Your task to perform on an android device: open app "Indeed Job Search" (install if not already installed) Image 0: 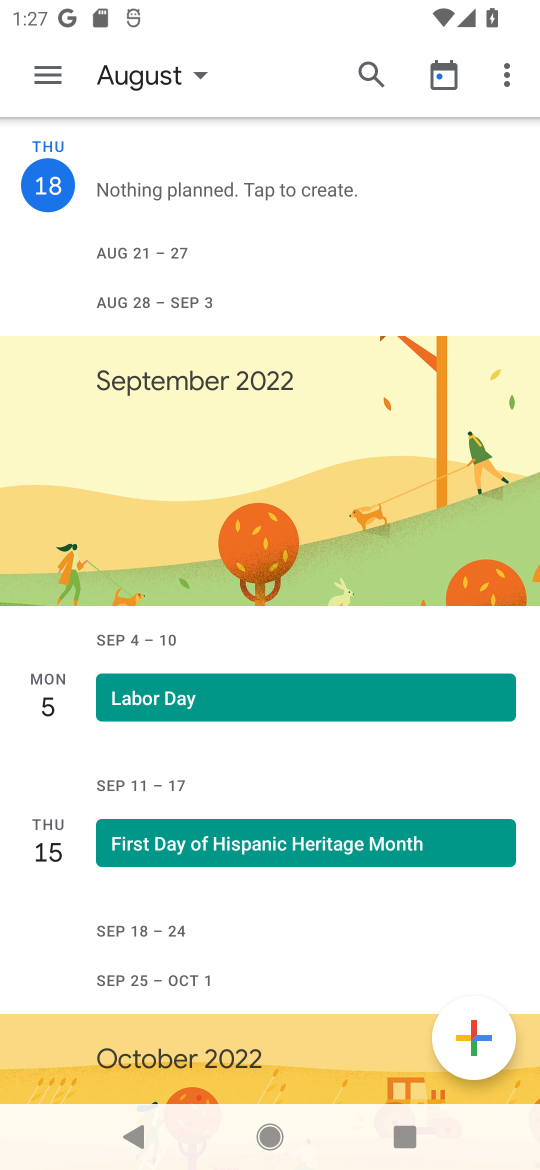
Step 0: press back button
Your task to perform on an android device: open app "Indeed Job Search" (install if not already installed) Image 1: 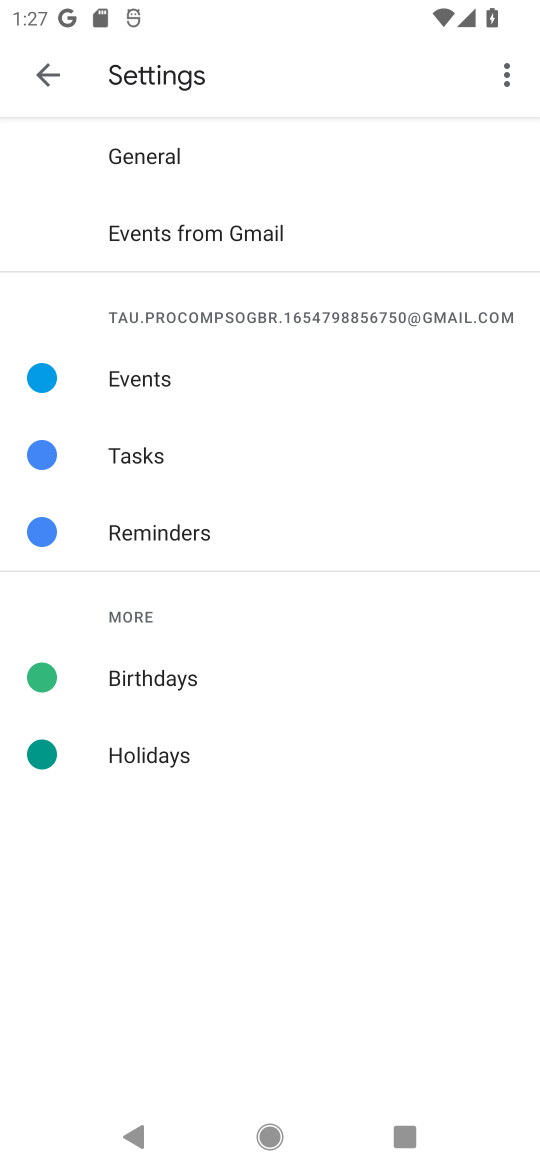
Step 1: press back button
Your task to perform on an android device: open app "Indeed Job Search" (install if not already installed) Image 2: 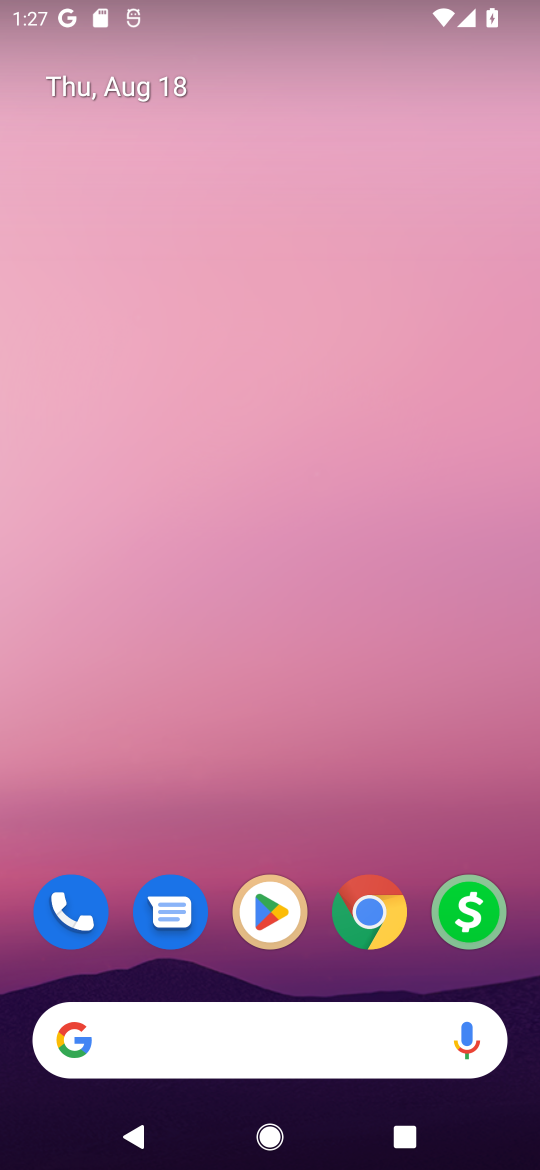
Step 2: click (266, 923)
Your task to perform on an android device: open app "Indeed Job Search" (install if not already installed) Image 3: 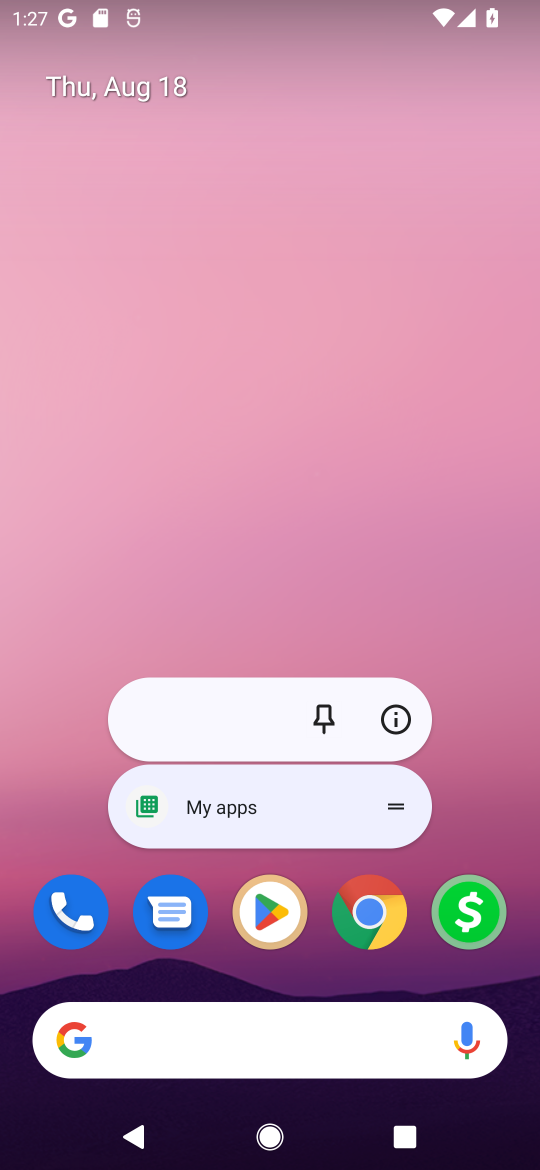
Step 3: click (258, 929)
Your task to perform on an android device: open app "Indeed Job Search" (install if not already installed) Image 4: 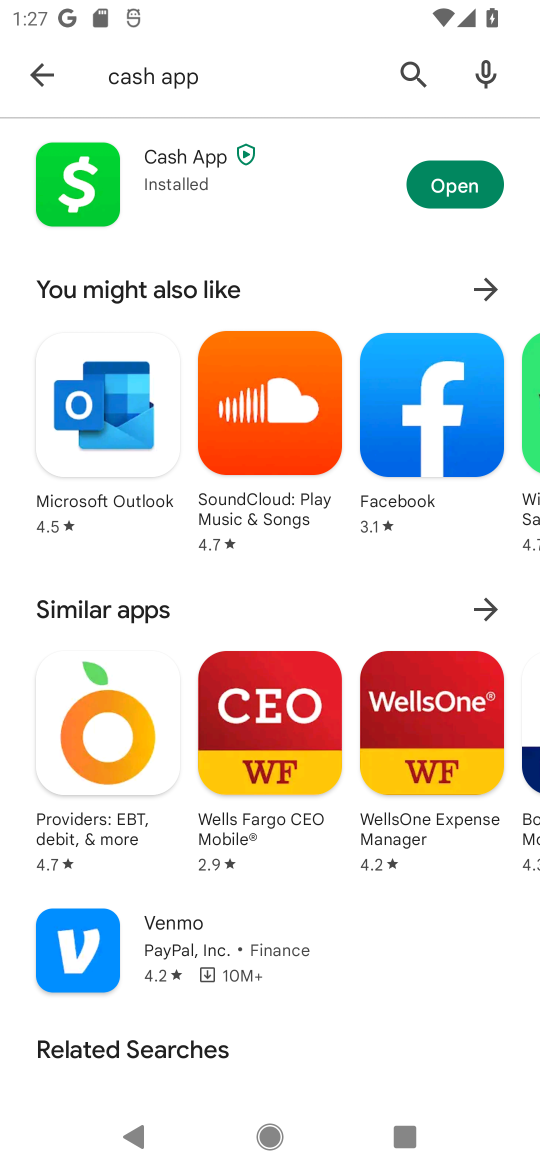
Step 4: click (411, 88)
Your task to perform on an android device: open app "Indeed Job Search" (install if not already installed) Image 5: 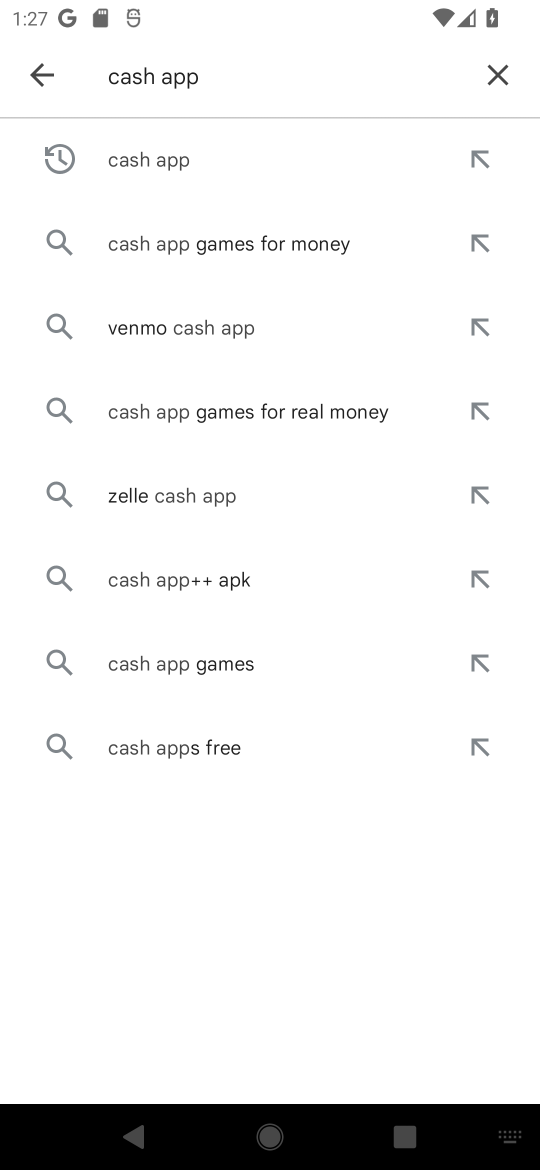
Step 5: click (496, 63)
Your task to perform on an android device: open app "Indeed Job Search" (install if not already installed) Image 6: 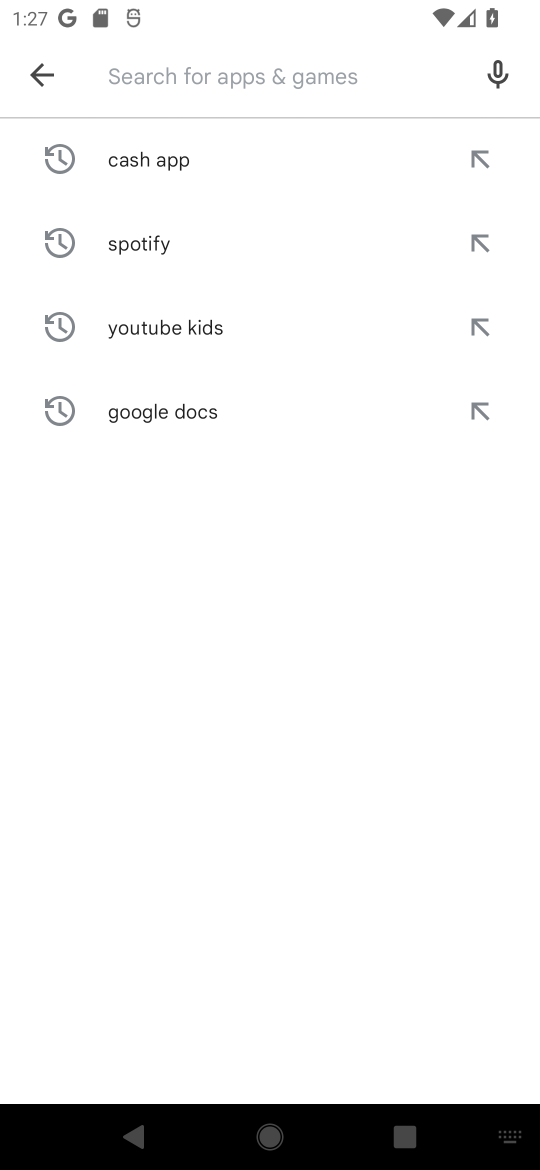
Step 6: click (136, 56)
Your task to perform on an android device: open app "Indeed Job Search" (install if not already installed) Image 7: 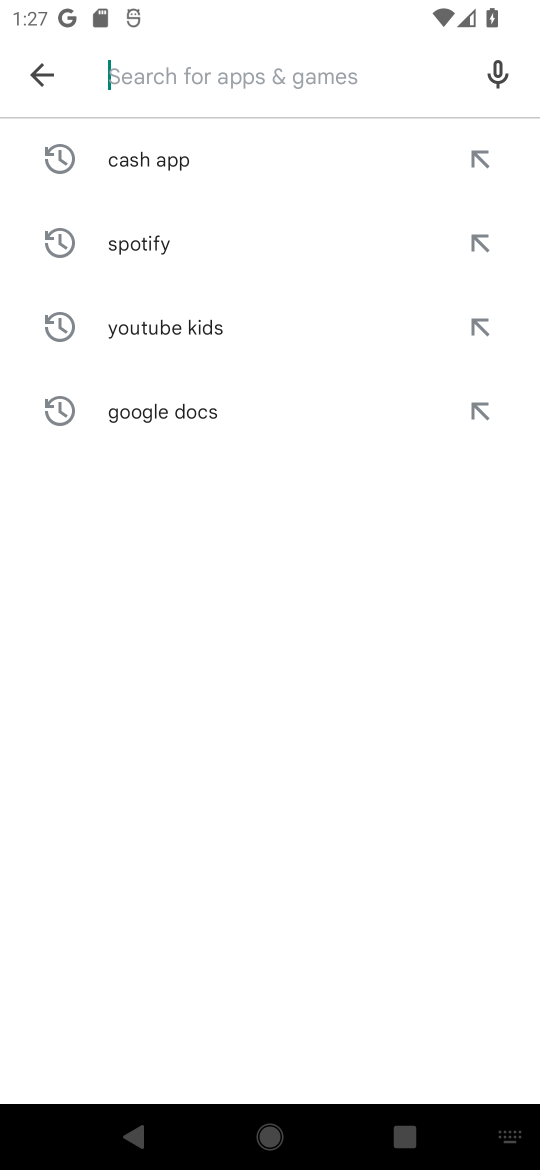
Step 7: type "Indeed Job Search"
Your task to perform on an android device: open app "Indeed Job Search" (install if not already installed) Image 8: 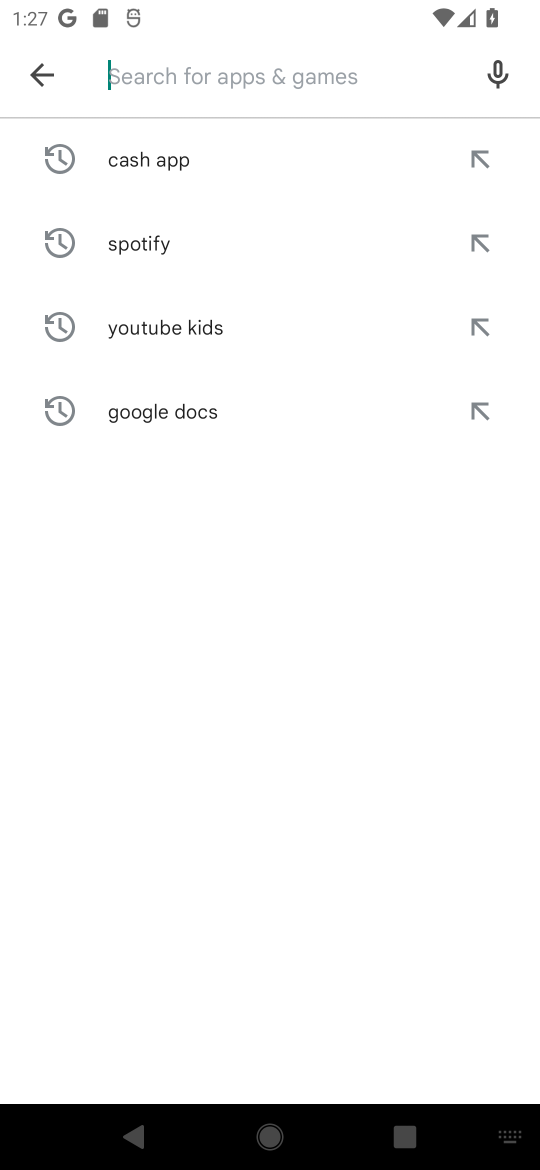
Step 8: click (317, 668)
Your task to perform on an android device: open app "Indeed Job Search" (install if not already installed) Image 9: 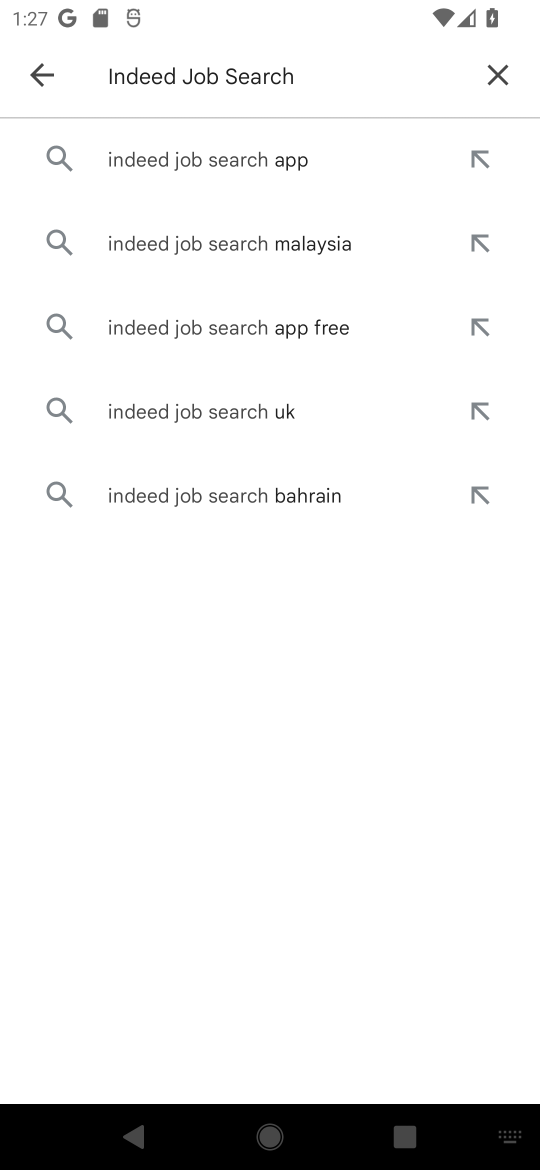
Step 9: click (214, 154)
Your task to perform on an android device: open app "Indeed Job Search" (install if not already installed) Image 10: 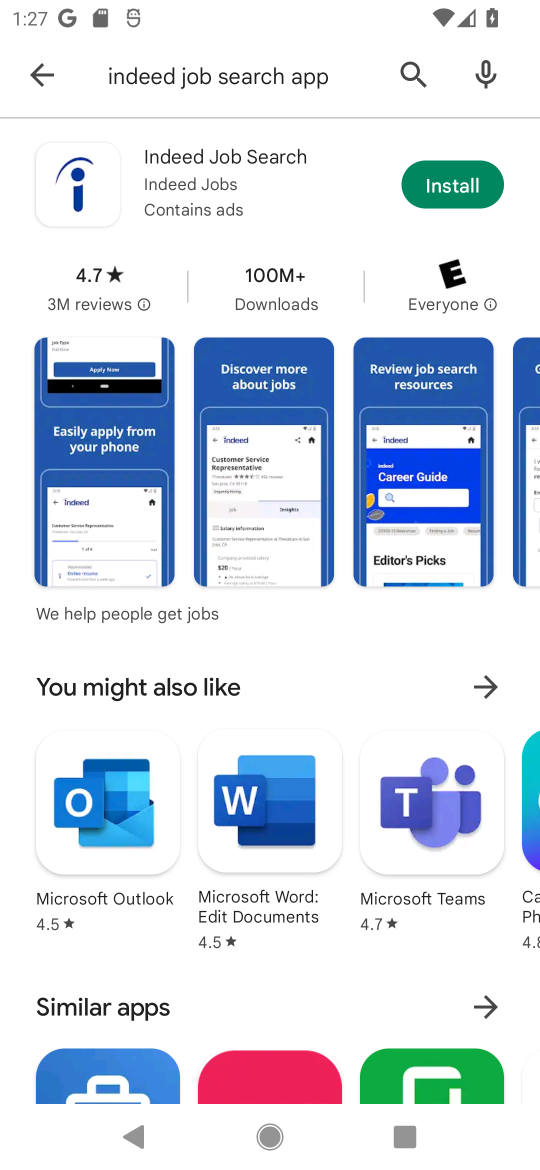
Step 10: click (429, 188)
Your task to perform on an android device: open app "Indeed Job Search" (install if not already installed) Image 11: 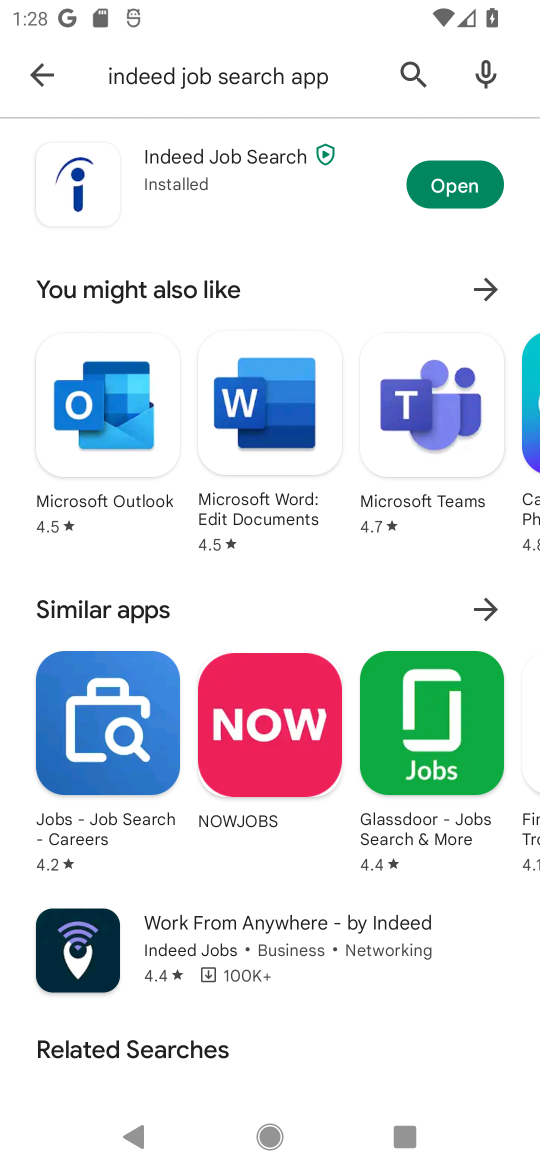
Step 11: click (472, 187)
Your task to perform on an android device: open app "Indeed Job Search" (install if not already installed) Image 12: 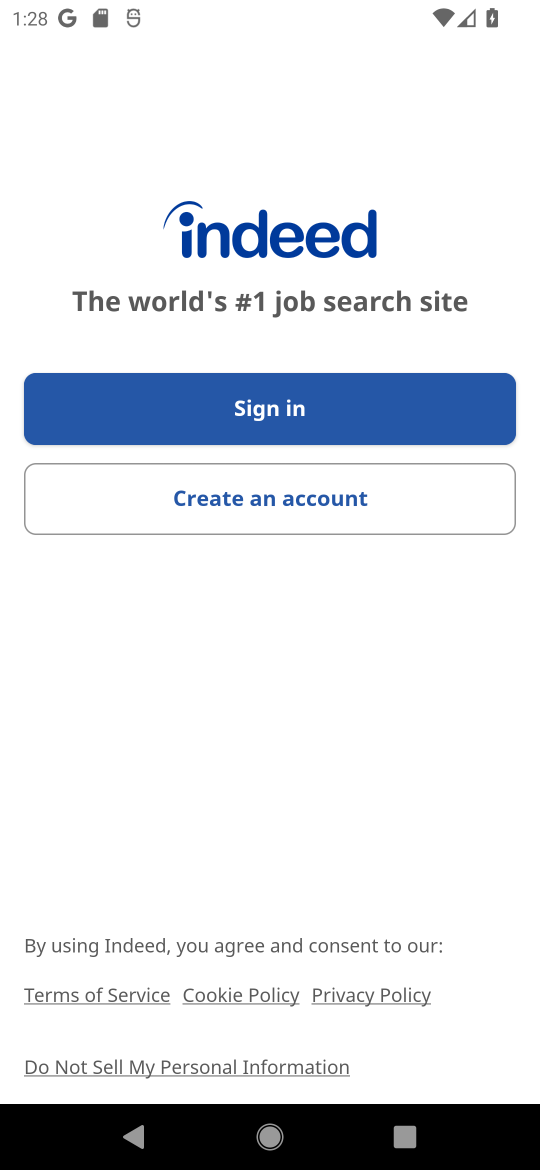
Step 12: task complete